Your task to perform on an android device: empty trash in google photos Image 0: 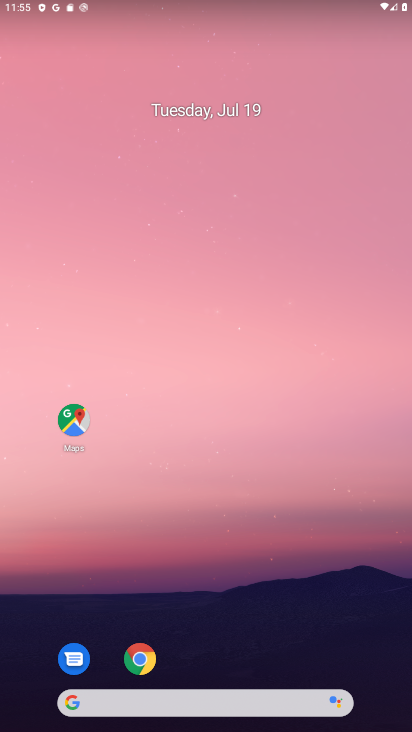
Step 0: drag from (202, 672) to (213, 61)
Your task to perform on an android device: empty trash in google photos Image 1: 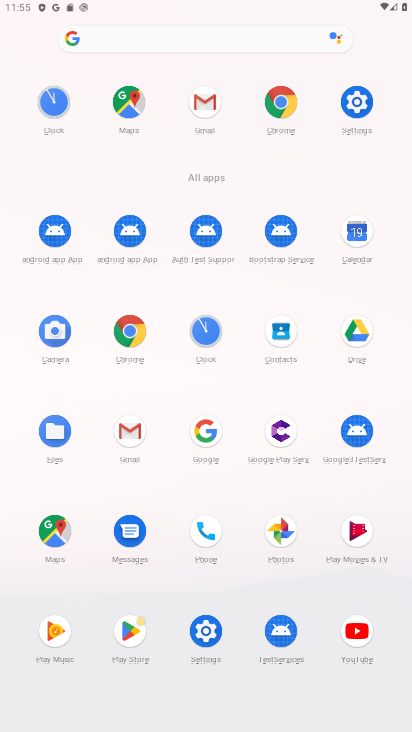
Step 1: click (279, 526)
Your task to perform on an android device: empty trash in google photos Image 2: 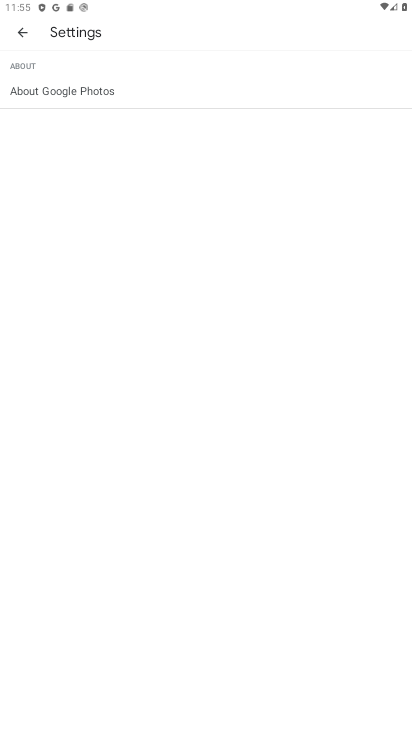
Step 2: click (12, 28)
Your task to perform on an android device: empty trash in google photos Image 3: 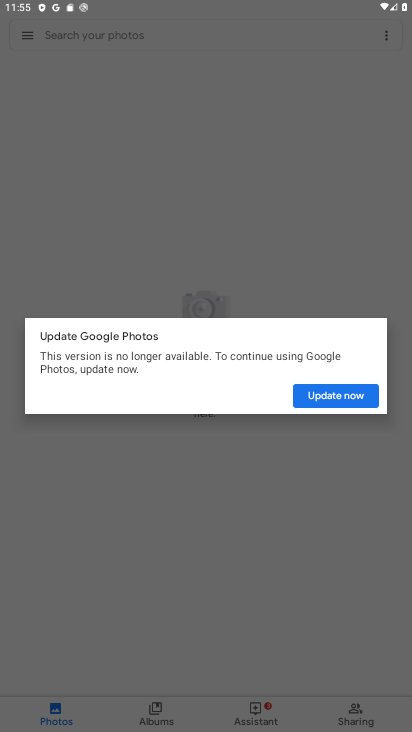
Step 3: click (256, 494)
Your task to perform on an android device: empty trash in google photos Image 4: 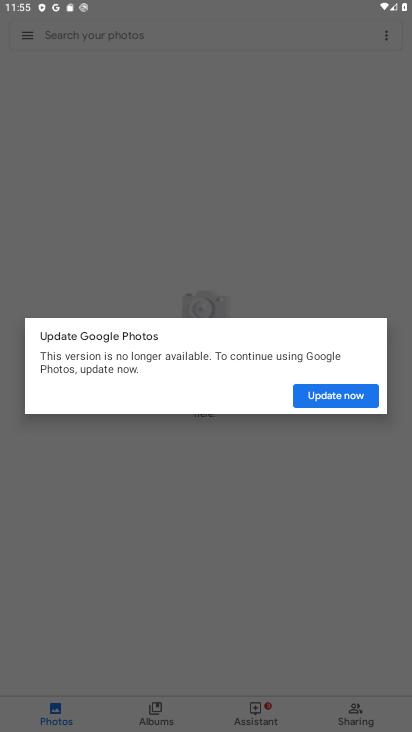
Step 4: click (348, 396)
Your task to perform on an android device: empty trash in google photos Image 5: 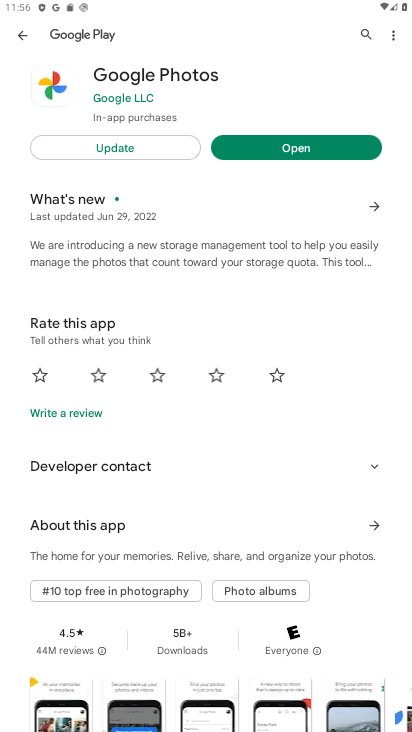
Step 5: click (111, 146)
Your task to perform on an android device: empty trash in google photos Image 6: 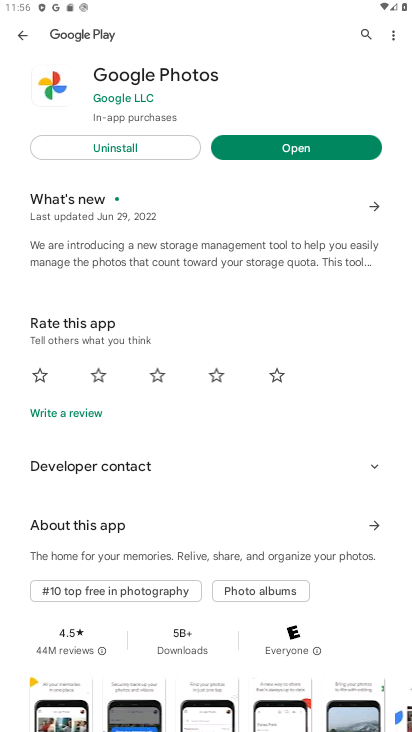
Step 6: click (300, 146)
Your task to perform on an android device: empty trash in google photos Image 7: 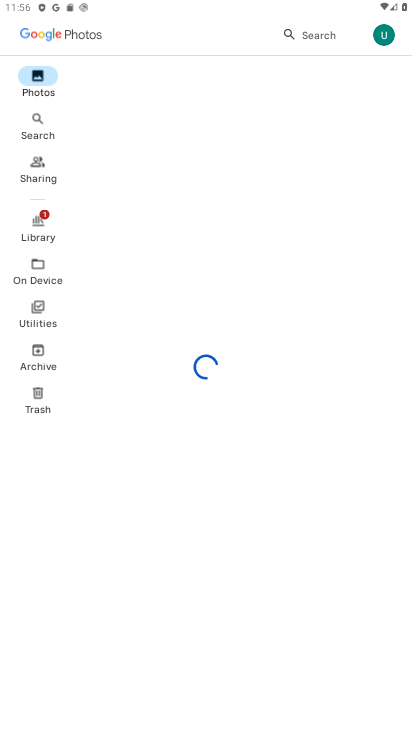
Step 7: click (35, 394)
Your task to perform on an android device: empty trash in google photos Image 8: 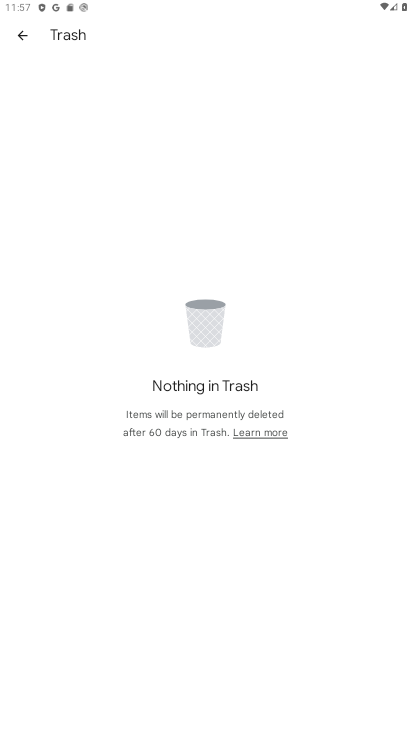
Step 8: task complete